Your task to perform on an android device: manage bookmarks in the chrome app Image 0: 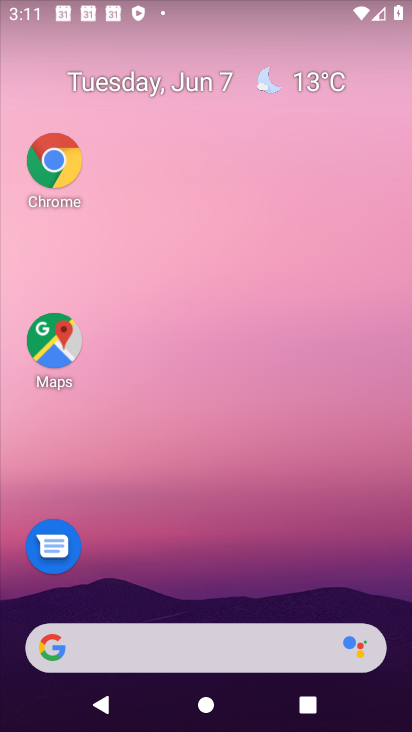
Step 0: click (262, 39)
Your task to perform on an android device: manage bookmarks in the chrome app Image 1: 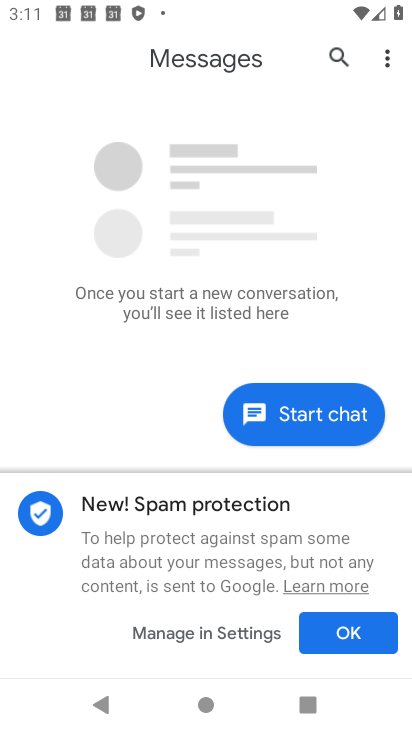
Step 1: press home button
Your task to perform on an android device: manage bookmarks in the chrome app Image 2: 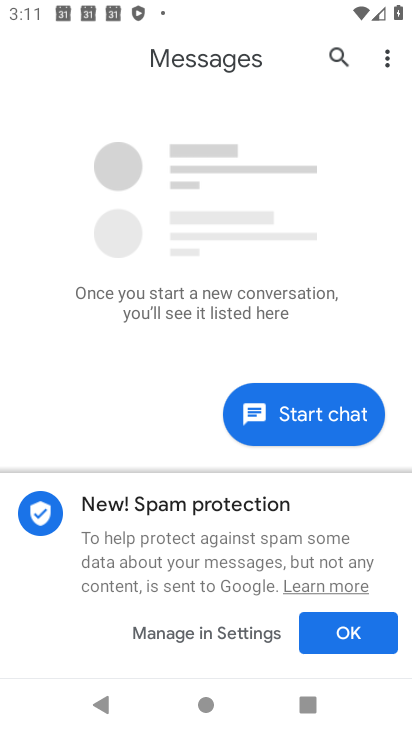
Step 2: press home button
Your task to perform on an android device: manage bookmarks in the chrome app Image 3: 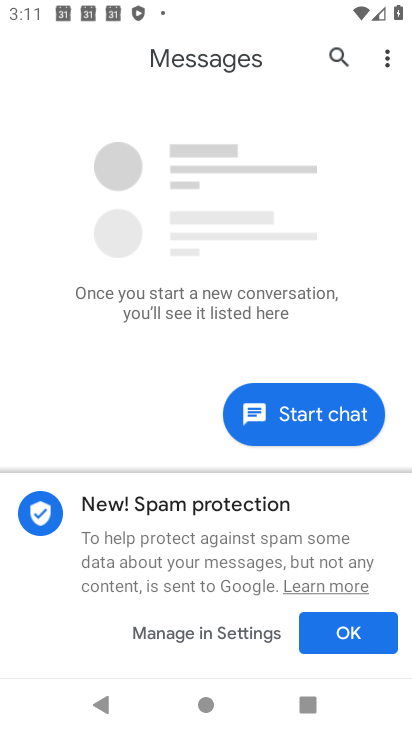
Step 3: click (245, 81)
Your task to perform on an android device: manage bookmarks in the chrome app Image 4: 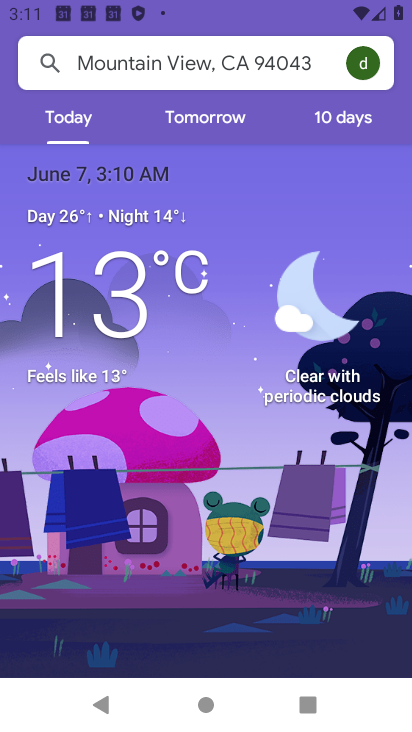
Step 4: drag from (192, 573) to (260, 10)
Your task to perform on an android device: manage bookmarks in the chrome app Image 5: 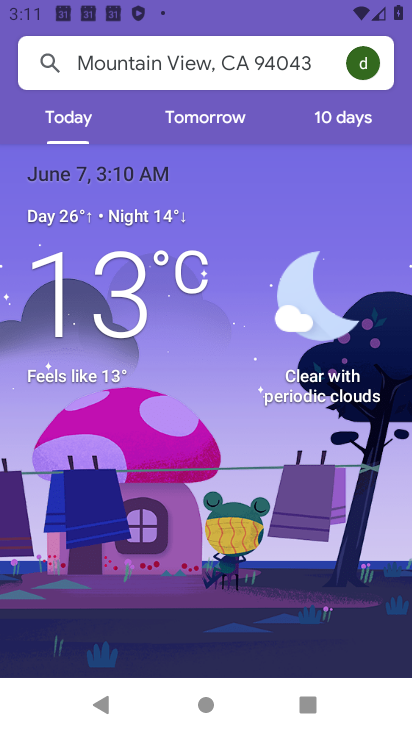
Step 5: drag from (182, 524) to (217, 366)
Your task to perform on an android device: manage bookmarks in the chrome app Image 6: 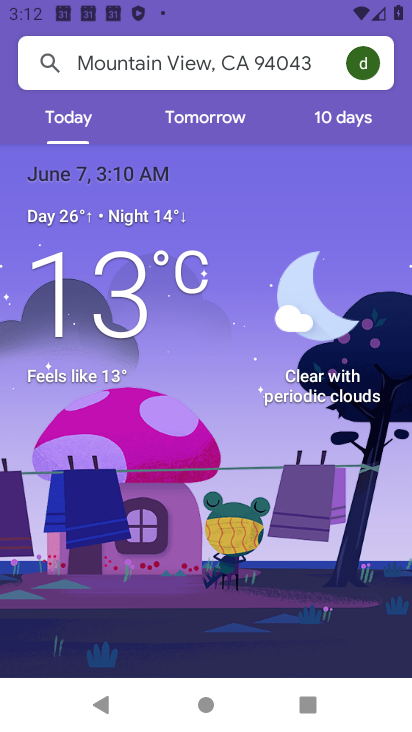
Step 6: drag from (288, 585) to (320, 35)
Your task to perform on an android device: manage bookmarks in the chrome app Image 7: 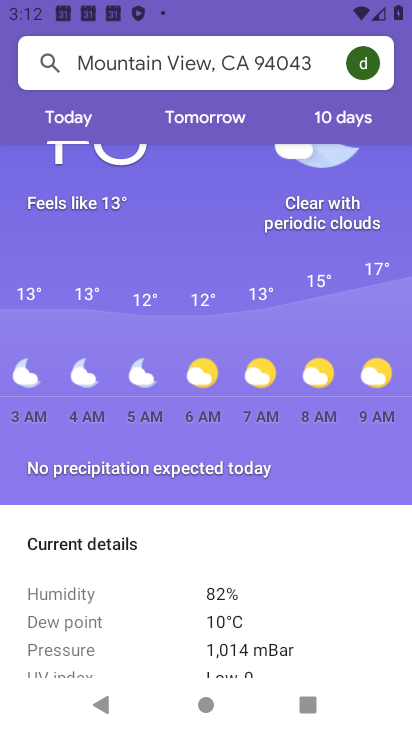
Step 7: drag from (199, 619) to (192, 209)
Your task to perform on an android device: manage bookmarks in the chrome app Image 8: 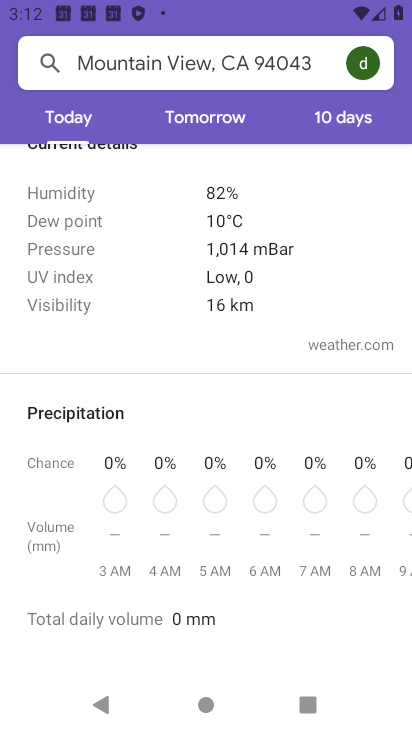
Step 8: drag from (227, 145) to (334, 728)
Your task to perform on an android device: manage bookmarks in the chrome app Image 9: 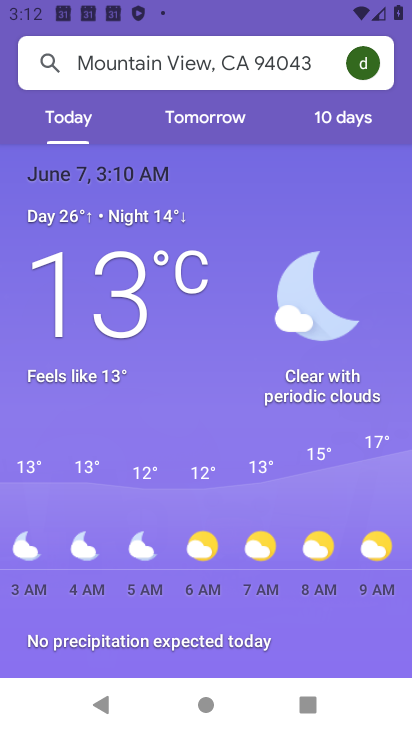
Step 9: press home button
Your task to perform on an android device: manage bookmarks in the chrome app Image 10: 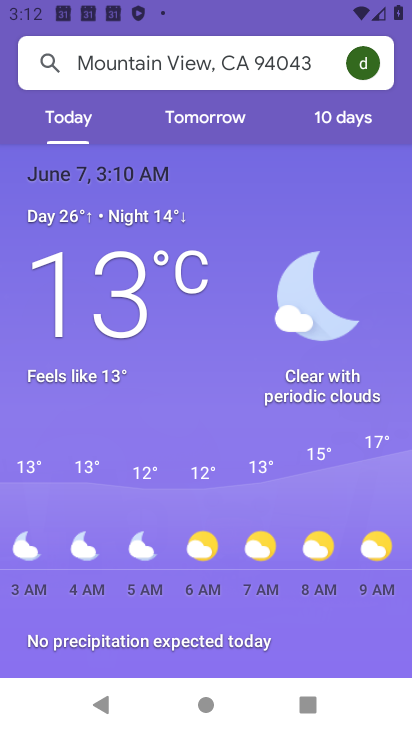
Step 10: drag from (241, 503) to (259, 15)
Your task to perform on an android device: manage bookmarks in the chrome app Image 11: 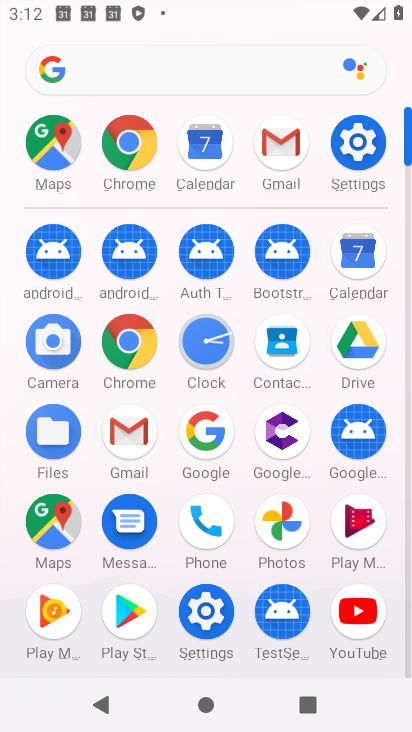
Step 11: click (132, 146)
Your task to perform on an android device: manage bookmarks in the chrome app Image 12: 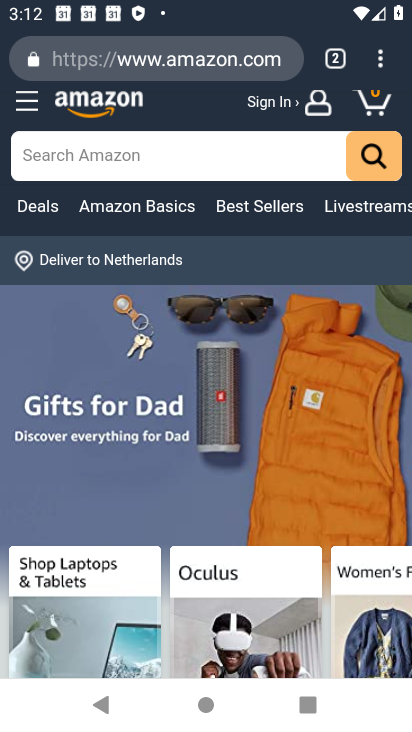
Step 12: click (378, 54)
Your task to perform on an android device: manage bookmarks in the chrome app Image 13: 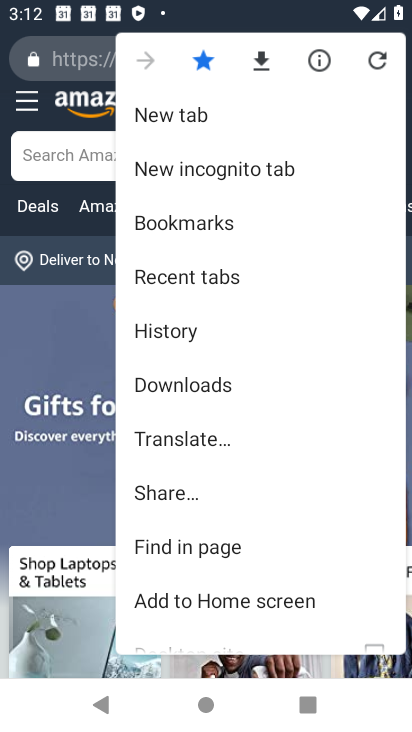
Step 13: drag from (206, 560) to (316, 83)
Your task to perform on an android device: manage bookmarks in the chrome app Image 14: 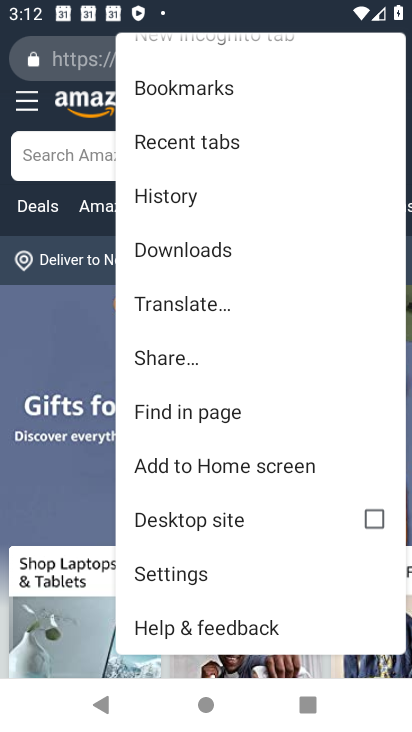
Step 14: click (227, 100)
Your task to perform on an android device: manage bookmarks in the chrome app Image 15: 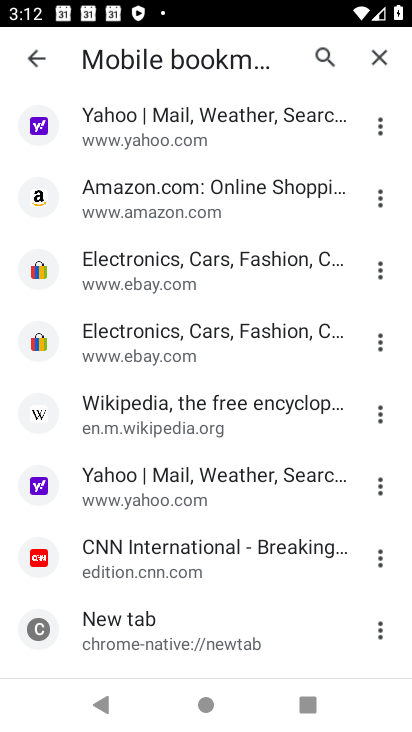
Step 15: drag from (173, 570) to (206, 166)
Your task to perform on an android device: manage bookmarks in the chrome app Image 16: 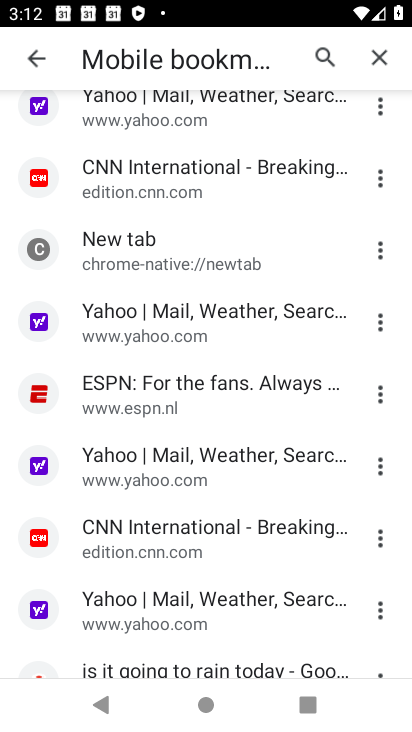
Step 16: drag from (205, 225) to (237, 721)
Your task to perform on an android device: manage bookmarks in the chrome app Image 17: 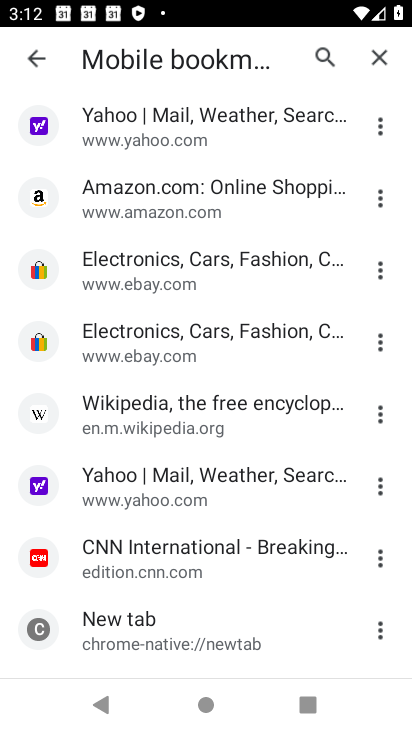
Step 17: drag from (204, 128) to (246, 571)
Your task to perform on an android device: manage bookmarks in the chrome app Image 18: 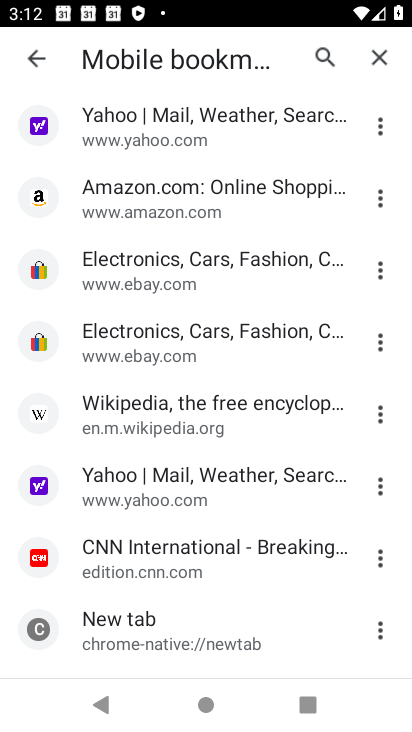
Step 18: click (377, 189)
Your task to perform on an android device: manage bookmarks in the chrome app Image 19: 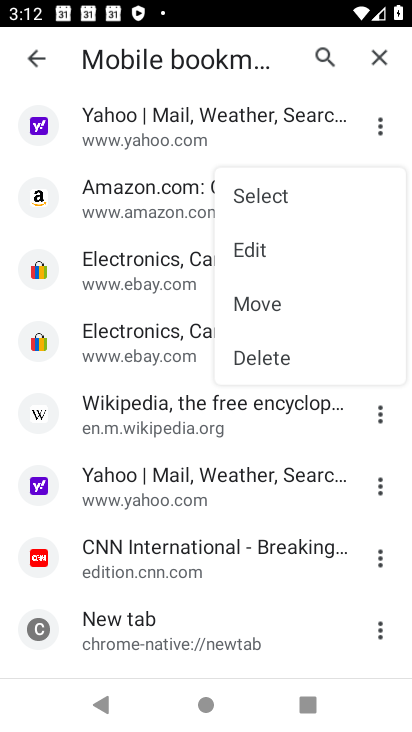
Step 19: click (283, 314)
Your task to perform on an android device: manage bookmarks in the chrome app Image 20: 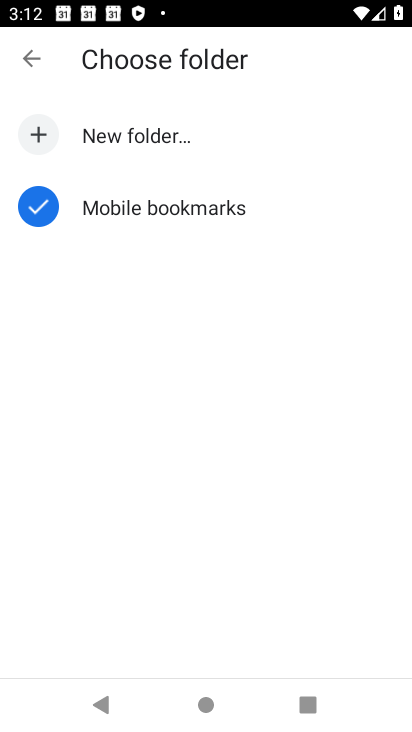
Step 20: click (34, 131)
Your task to perform on an android device: manage bookmarks in the chrome app Image 21: 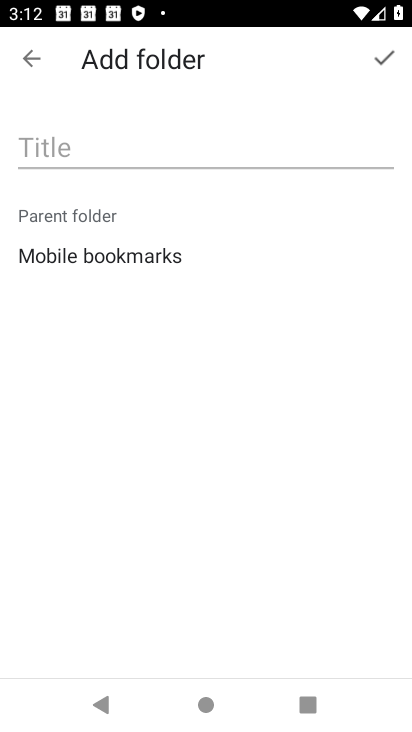
Step 21: task complete